Your task to perform on an android device: toggle show notifications on the lock screen Image 0: 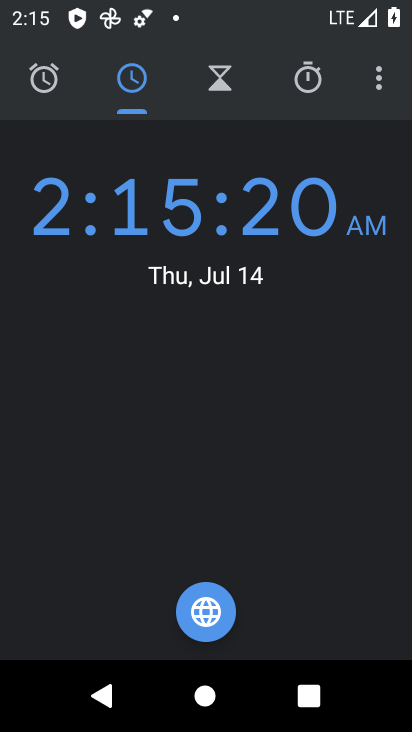
Step 0: press home button
Your task to perform on an android device: toggle show notifications on the lock screen Image 1: 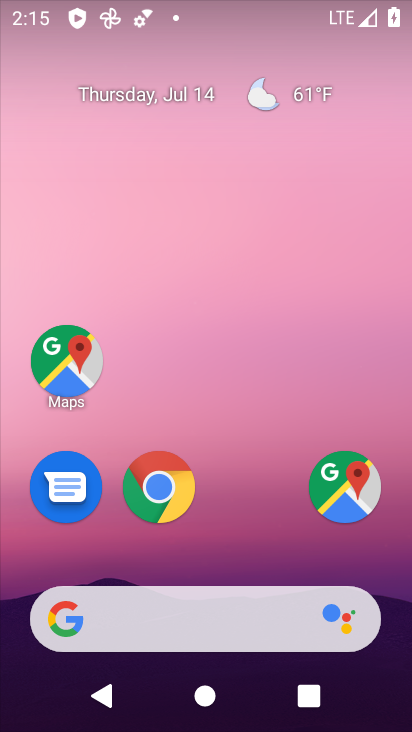
Step 1: drag from (262, 555) to (297, 64)
Your task to perform on an android device: toggle show notifications on the lock screen Image 2: 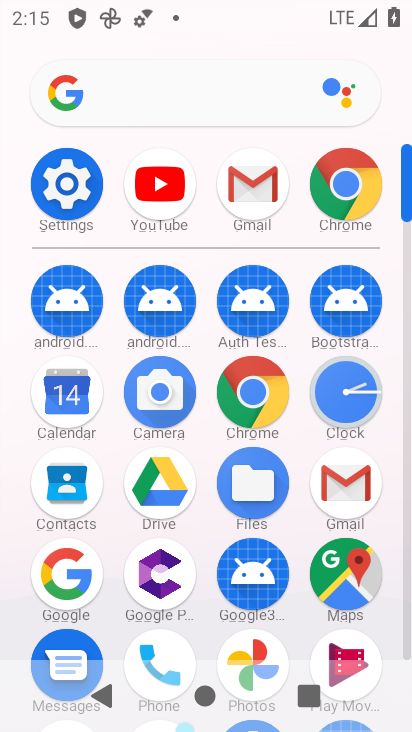
Step 2: click (67, 191)
Your task to perform on an android device: toggle show notifications on the lock screen Image 3: 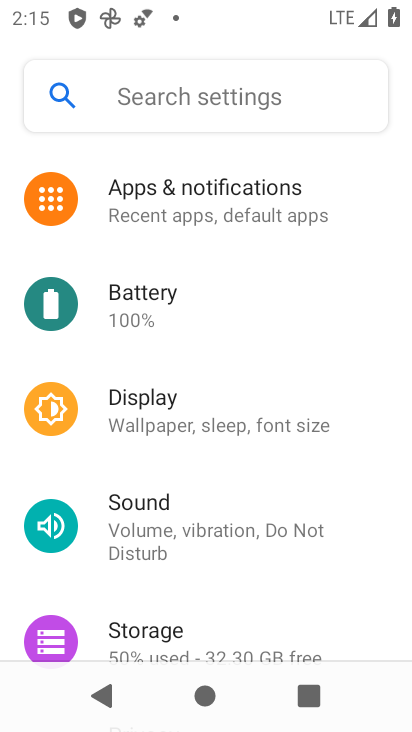
Step 3: drag from (376, 308) to (370, 399)
Your task to perform on an android device: toggle show notifications on the lock screen Image 4: 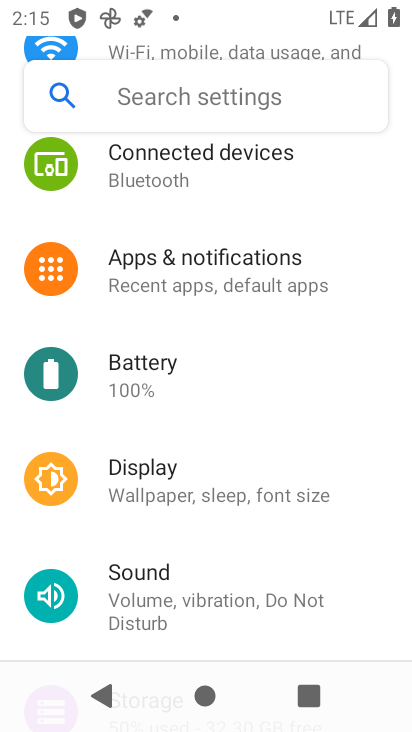
Step 4: drag from (377, 244) to (360, 358)
Your task to perform on an android device: toggle show notifications on the lock screen Image 5: 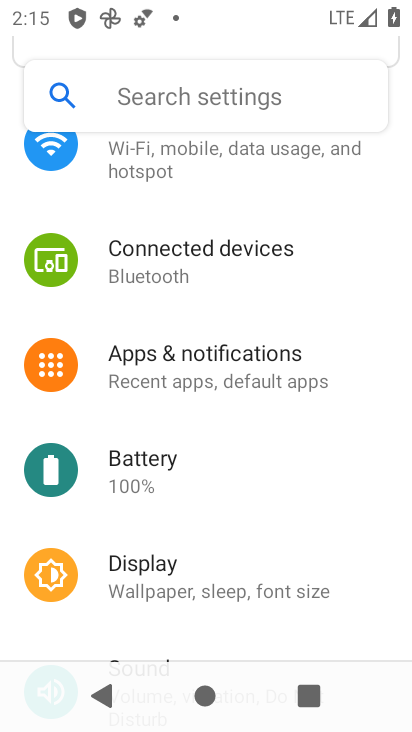
Step 5: drag from (359, 218) to (351, 346)
Your task to perform on an android device: toggle show notifications on the lock screen Image 6: 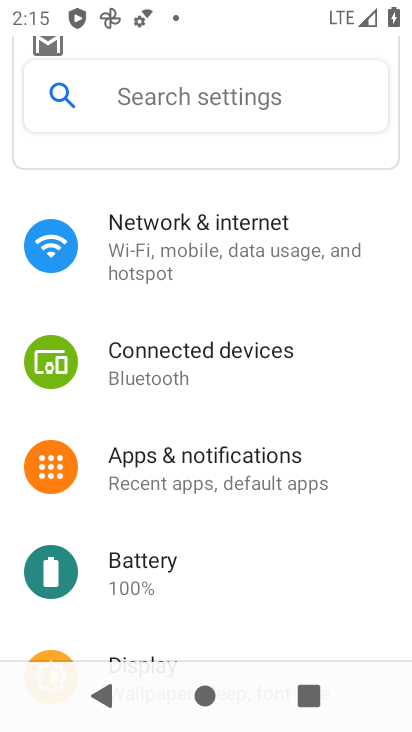
Step 6: drag from (364, 549) to (377, 429)
Your task to perform on an android device: toggle show notifications on the lock screen Image 7: 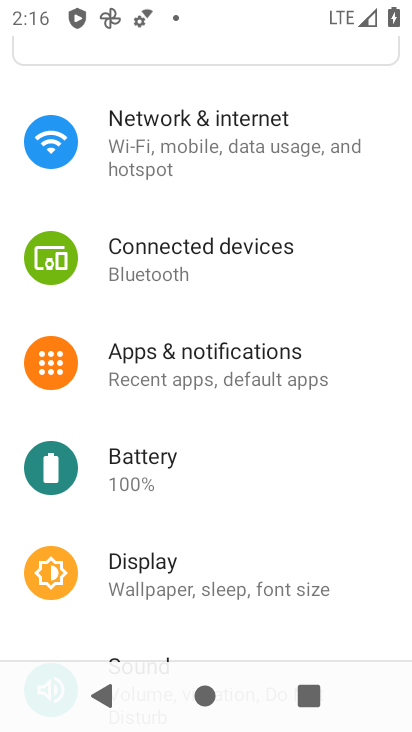
Step 7: drag from (370, 507) to (379, 426)
Your task to perform on an android device: toggle show notifications on the lock screen Image 8: 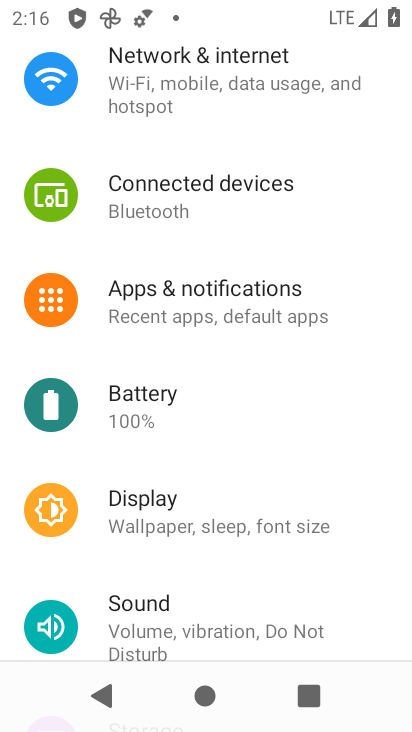
Step 8: click (318, 334)
Your task to perform on an android device: toggle show notifications on the lock screen Image 9: 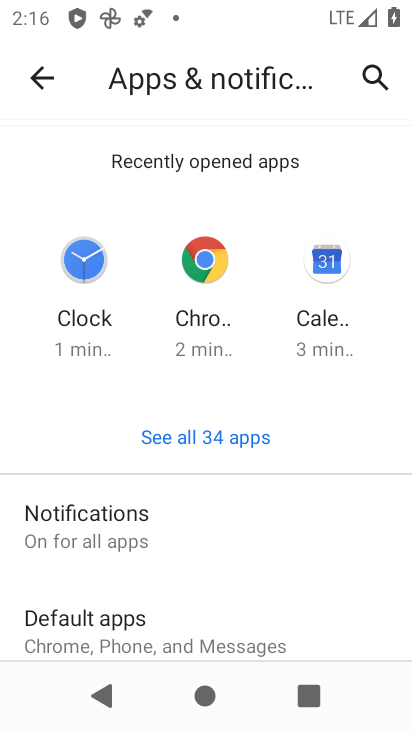
Step 9: drag from (319, 497) to (323, 408)
Your task to perform on an android device: toggle show notifications on the lock screen Image 10: 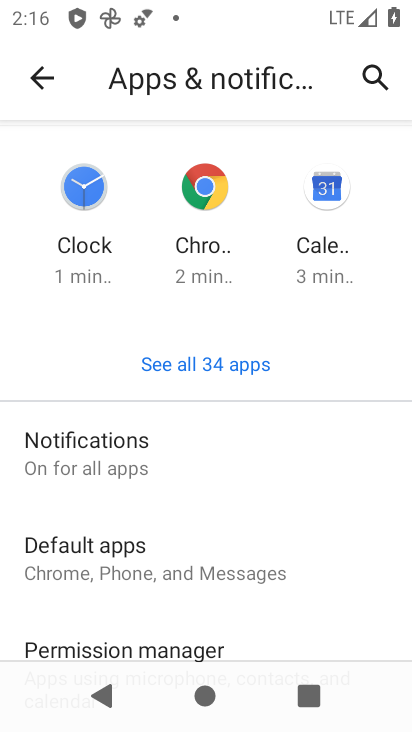
Step 10: drag from (335, 523) to (333, 420)
Your task to perform on an android device: toggle show notifications on the lock screen Image 11: 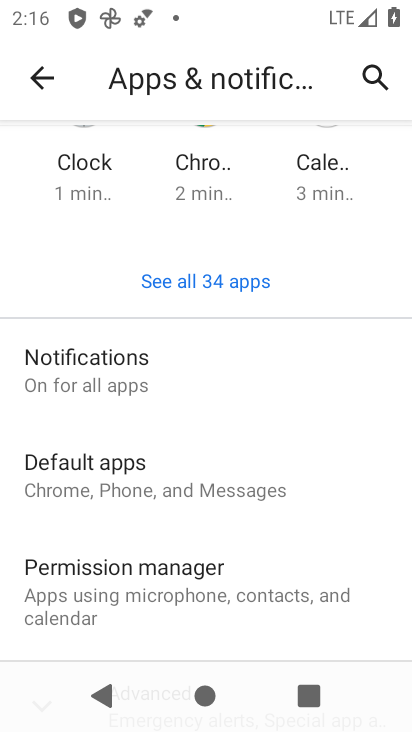
Step 11: drag from (324, 514) to (330, 341)
Your task to perform on an android device: toggle show notifications on the lock screen Image 12: 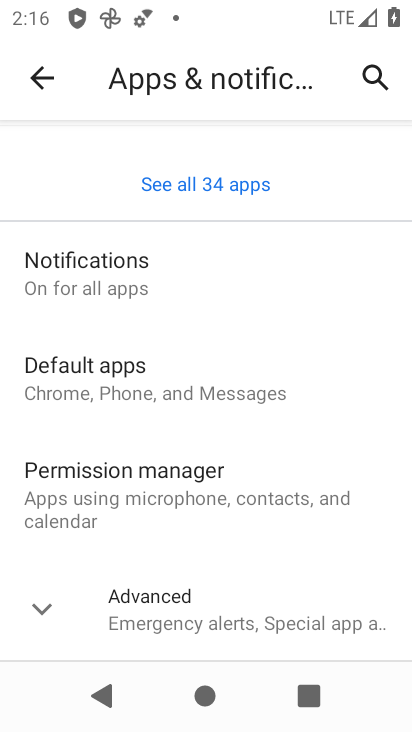
Step 12: click (172, 289)
Your task to perform on an android device: toggle show notifications on the lock screen Image 13: 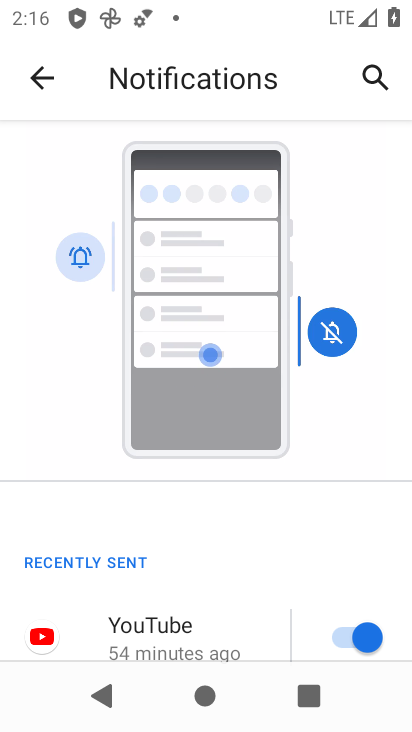
Step 13: drag from (260, 511) to (268, 409)
Your task to perform on an android device: toggle show notifications on the lock screen Image 14: 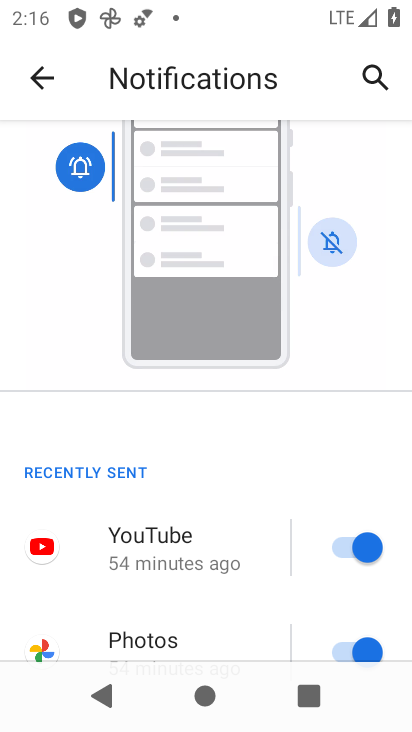
Step 14: drag from (247, 519) to (258, 411)
Your task to perform on an android device: toggle show notifications on the lock screen Image 15: 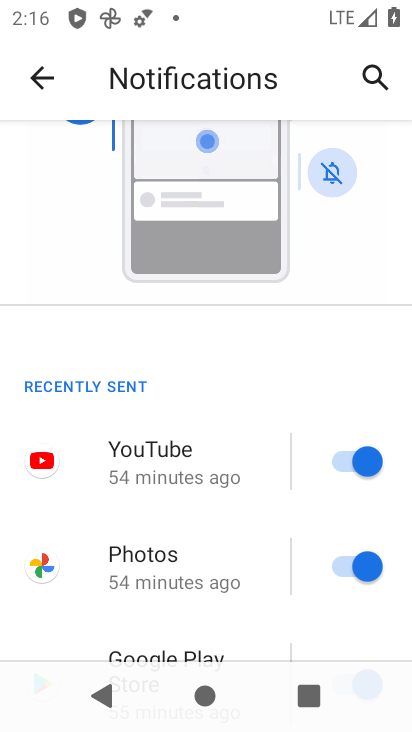
Step 15: drag from (252, 529) to (260, 414)
Your task to perform on an android device: toggle show notifications on the lock screen Image 16: 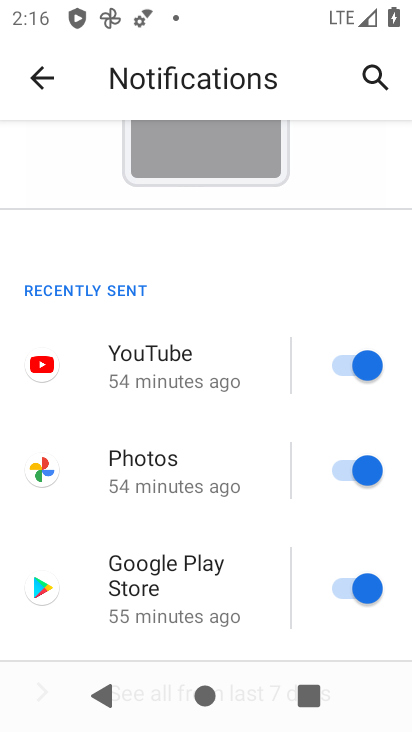
Step 16: drag from (250, 541) to (261, 398)
Your task to perform on an android device: toggle show notifications on the lock screen Image 17: 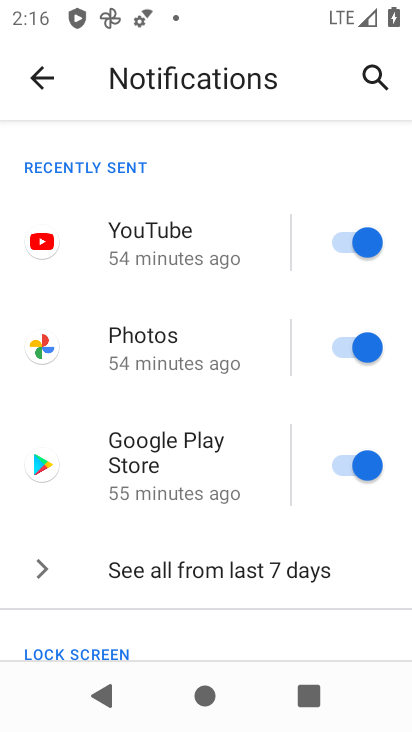
Step 17: drag from (259, 591) to (270, 434)
Your task to perform on an android device: toggle show notifications on the lock screen Image 18: 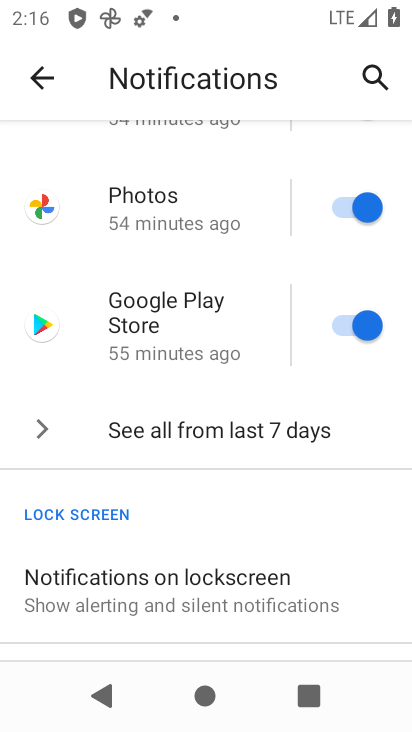
Step 18: drag from (247, 523) to (248, 404)
Your task to perform on an android device: toggle show notifications on the lock screen Image 19: 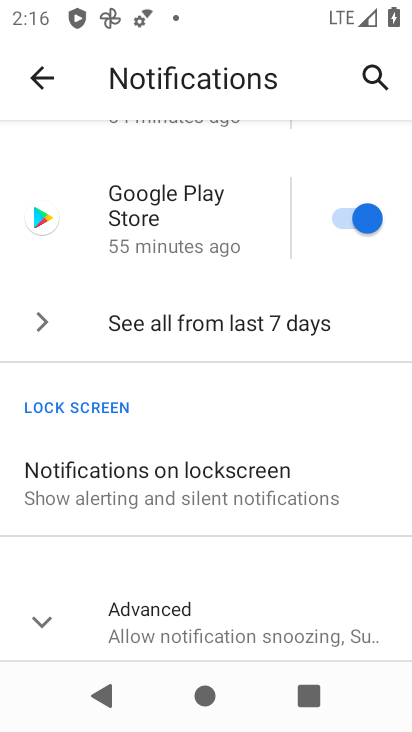
Step 19: click (222, 492)
Your task to perform on an android device: toggle show notifications on the lock screen Image 20: 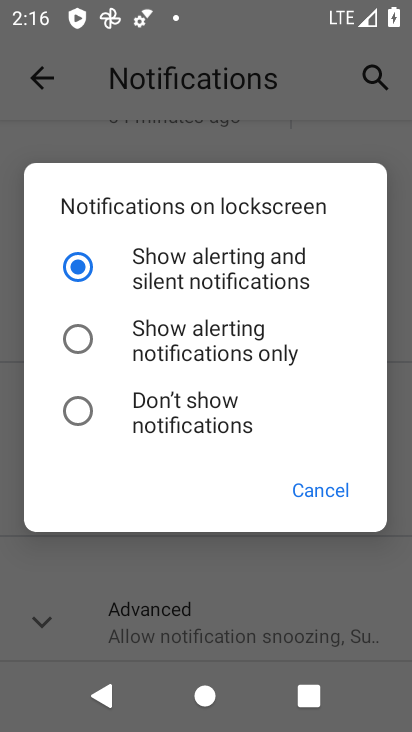
Step 20: click (158, 343)
Your task to perform on an android device: toggle show notifications on the lock screen Image 21: 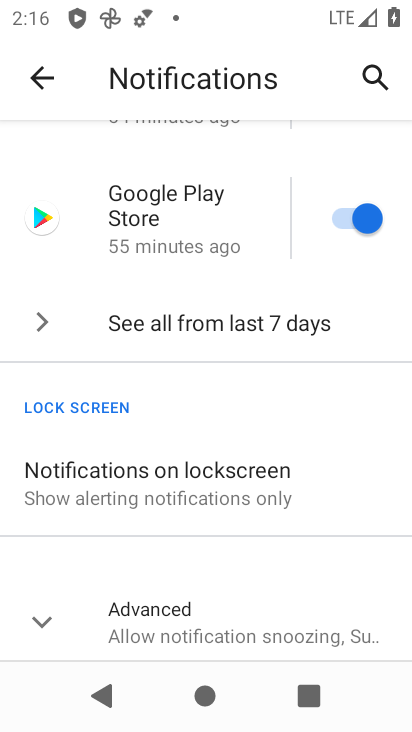
Step 21: task complete